Your task to perform on an android device: Do I have any events today? Image 0: 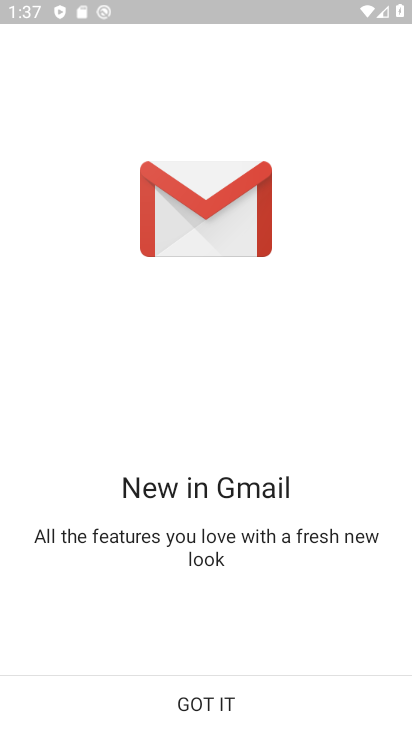
Step 0: press home button
Your task to perform on an android device: Do I have any events today? Image 1: 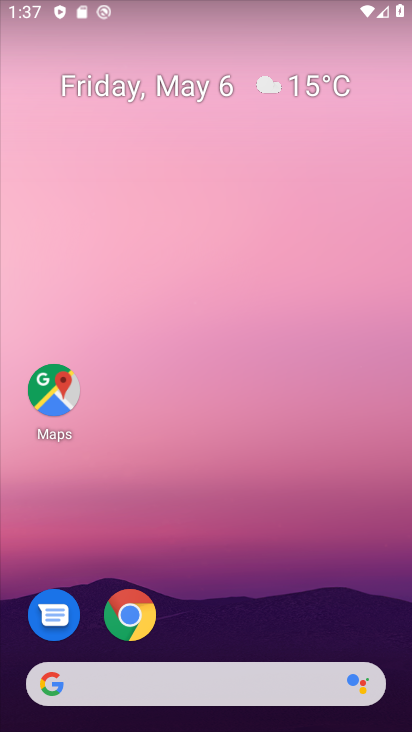
Step 1: drag from (270, 598) to (324, 130)
Your task to perform on an android device: Do I have any events today? Image 2: 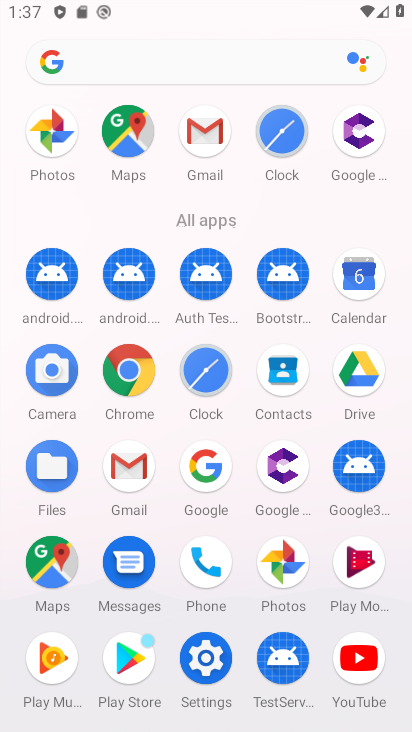
Step 2: click (366, 289)
Your task to perform on an android device: Do I have any events today? Image 3: 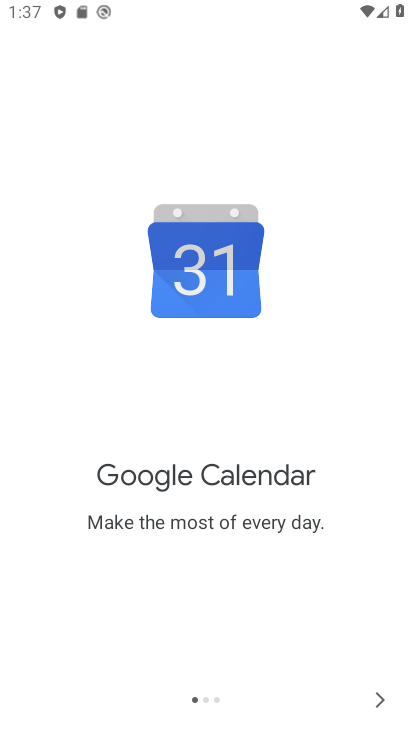
Step 3: click (381, 703)
Your task to perform on an android device: Do I have any events today? Image 4: 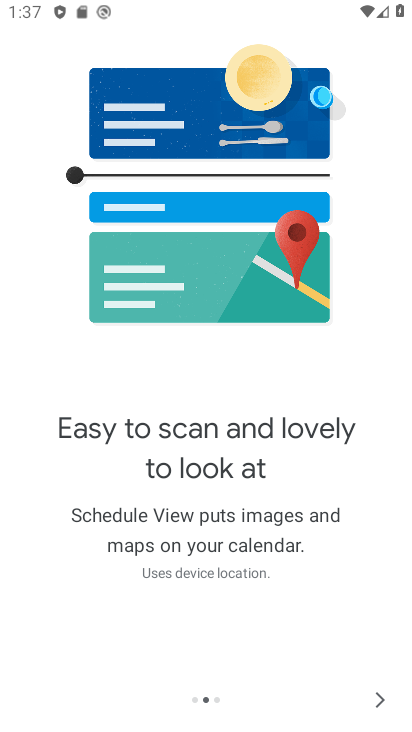
Step 4: click (381, 703)
Your task to perform on an android device: Do I have any events today? Image 5: 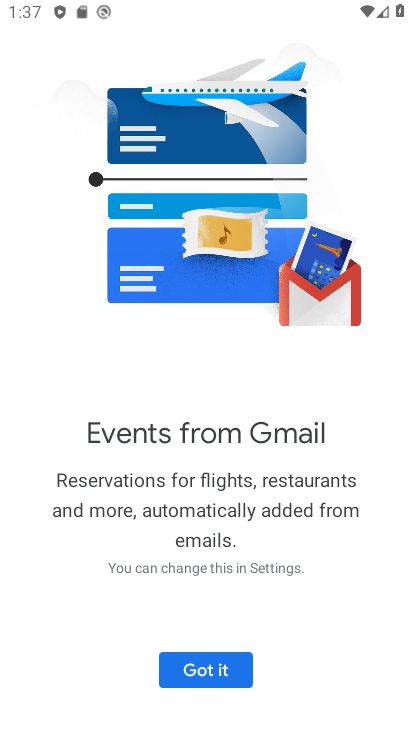
Step 5: click (233, 673)
Your task to perform on an android device: Do I have any events today? Image 6: 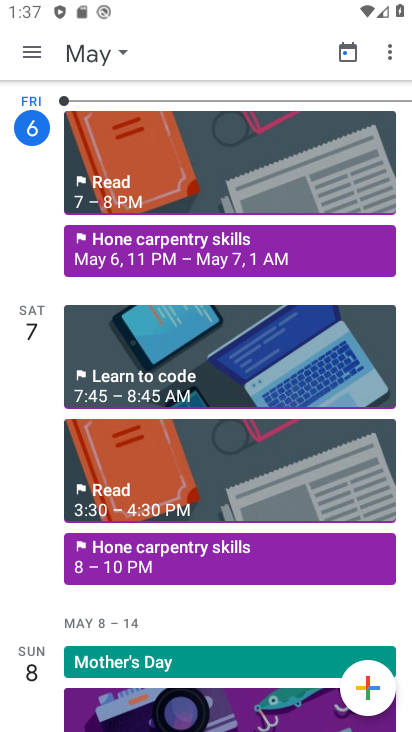
Step 6: click (87, 60)
Your task to perform on an android device: Do I have any events today? Image 7: 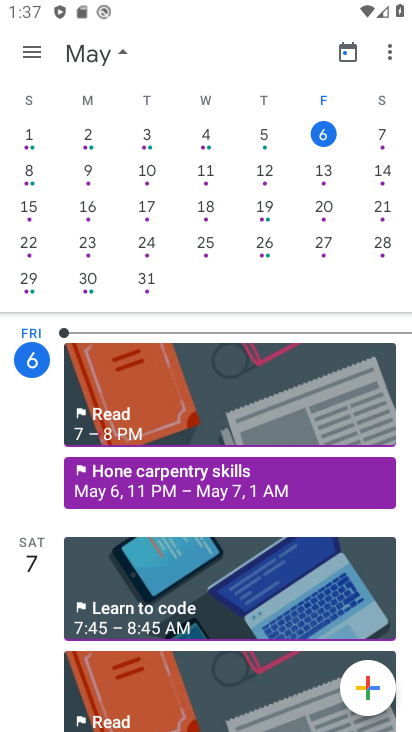
Step 7: click (330, 133)
Your task to perform on an android device: Do I have any events today? Image 8: 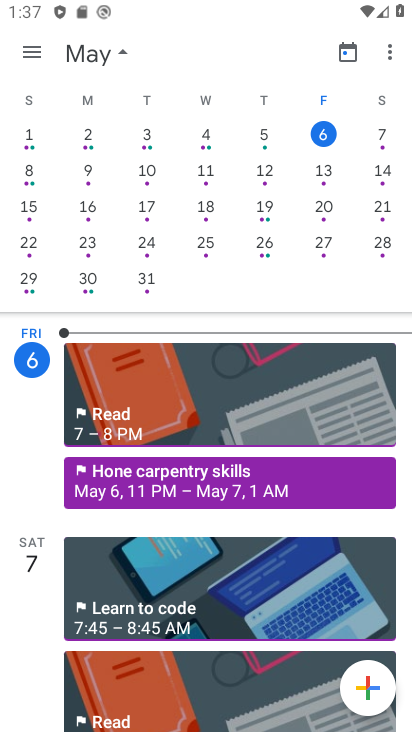
Step 8: task complete